Your task to perform on an android device: open a bookmark in the chrome app Image 0: 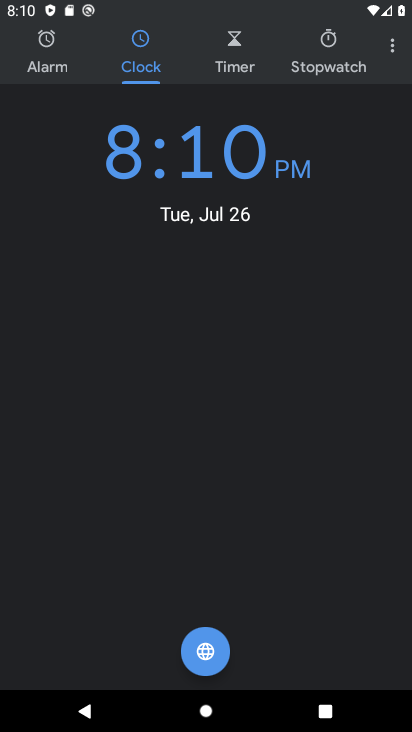
Step 0: press home button
Your task to perform on an android device: open a bookmark in the chrome app Image 1: 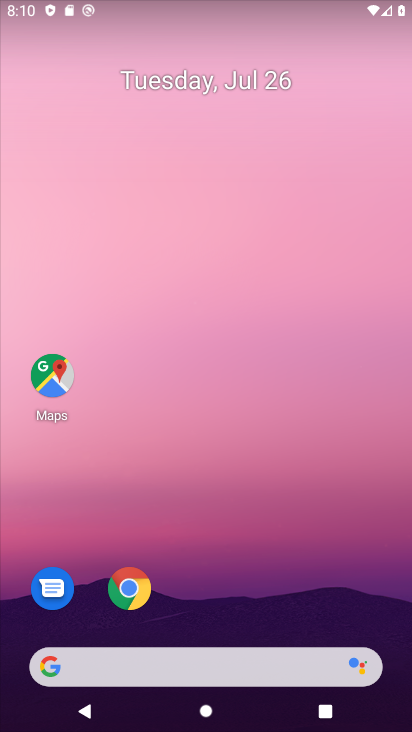
Step 1: click (125, 577)
Your task to perform on an android device: open a bookmark in the chrome app Image 2: 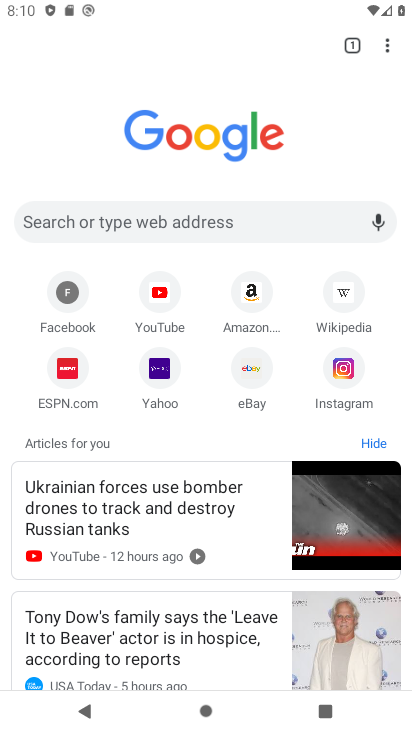
Step 2: click (391, 46)
Your task to perform on an android device: open a bookmark in the chrome app Image 3: 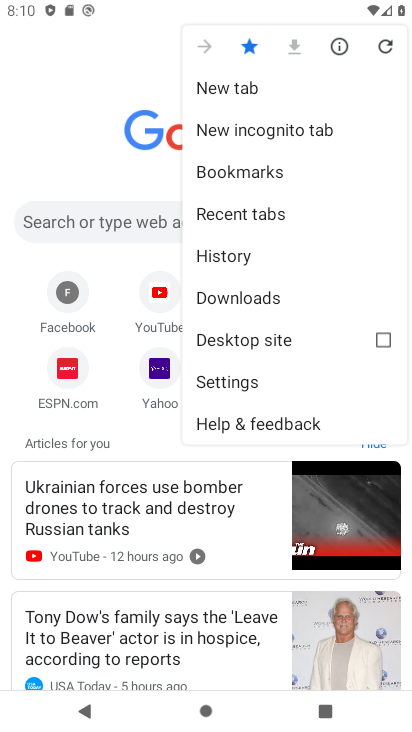
Step 3: click (235, 167)
Your task to perform on an android device: open a bookmark in the chrome app Image 4: 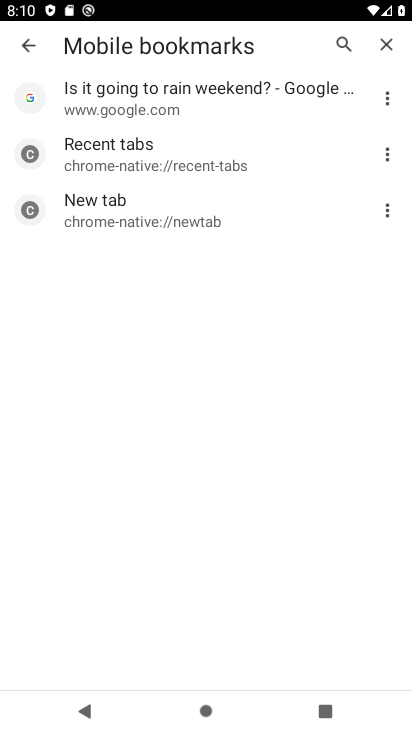
Step 4: click (144, 116)
Your task to perform on an android device: open a bookmark in the chrome app Image 5: 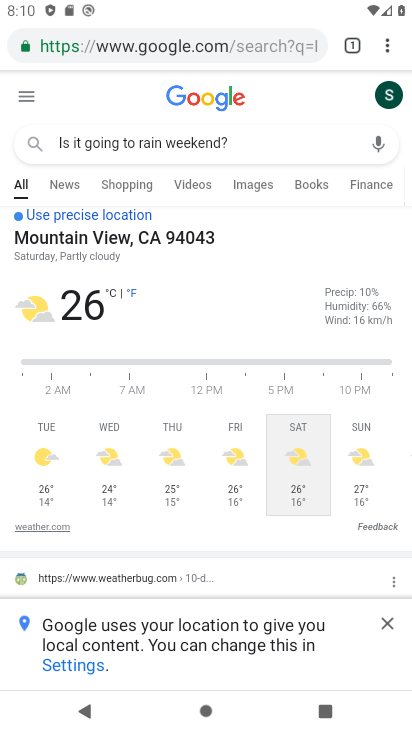
Step 5: task complete